Your task to perform on an android device: Open Wikipedia Image 0: 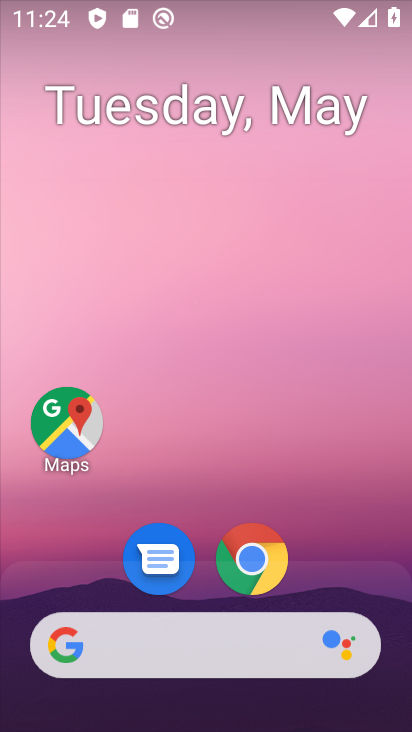
Step 0: drag from (395, 668) to (319, 74)
Your task to perform on an android device: Open Wikipedia Image 1: 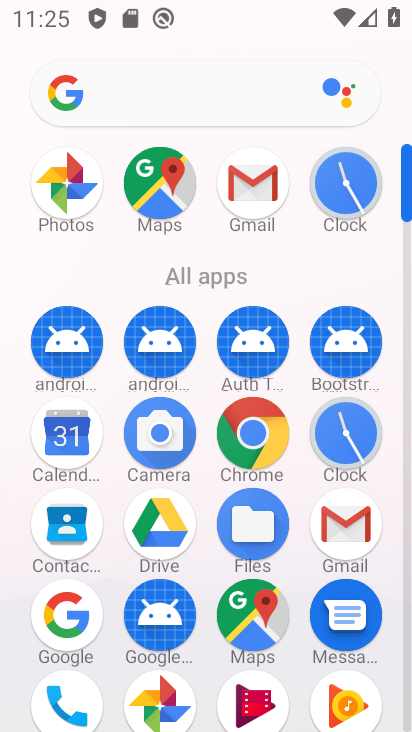
Step 1: click (51, 623)
Your task to perform on an android device: Open Wikipedia Image 2: 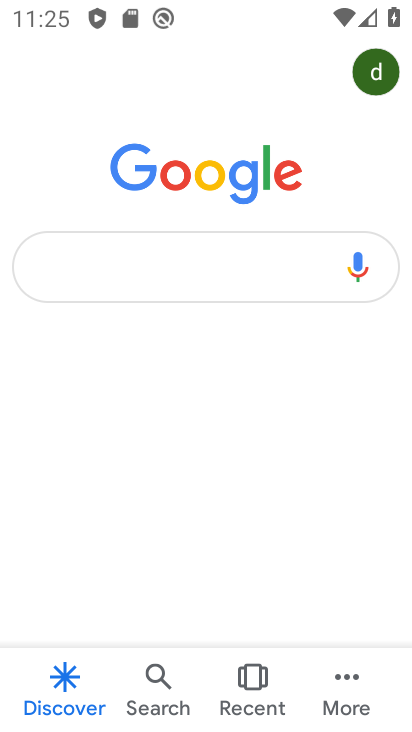
Step 2: click (147, 280)
Your task to perform on an android device: Open Wikipedia Image 3: 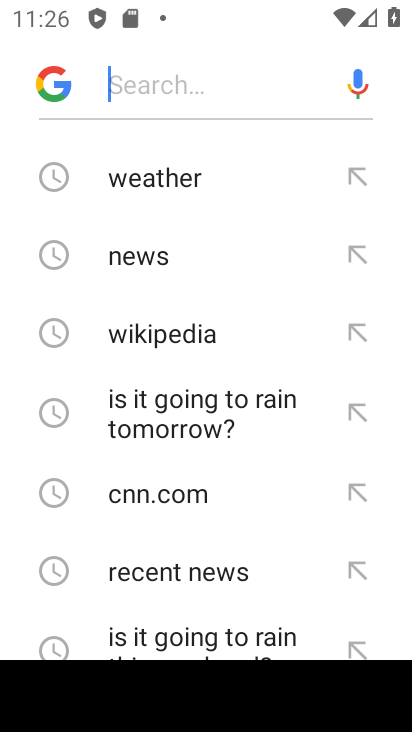
Step 3: click (176, 341)
Your task to perform on an android device: Open Wikipedia Image 4: 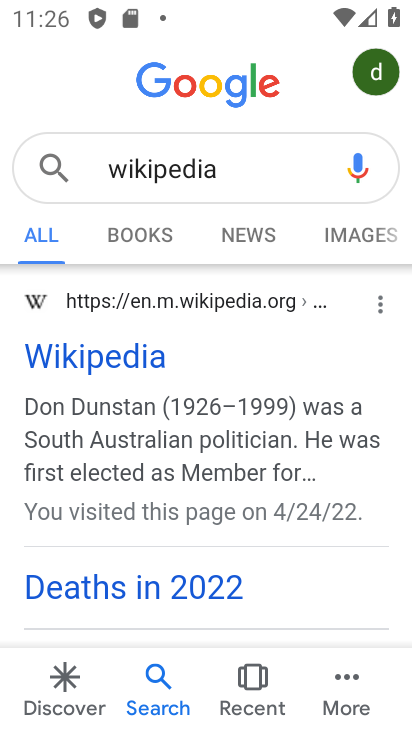
Step 4: task complete